Your task to perform on an android device: move a message to another label in the gmail app Image 0: 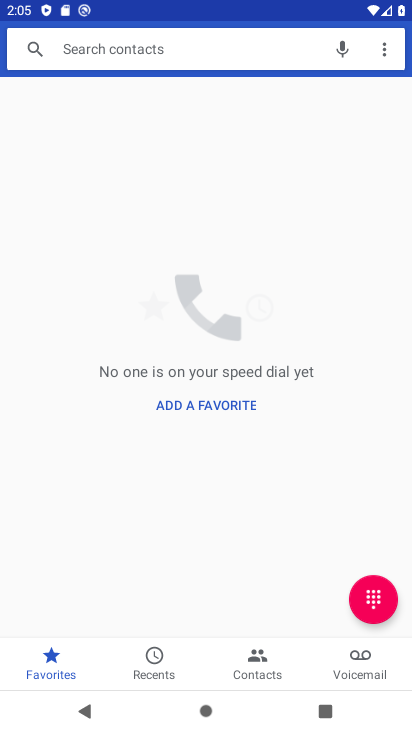
Step 0: press back button
Your task to perform on an android device: move a message to another label in the gmail app Image 1: 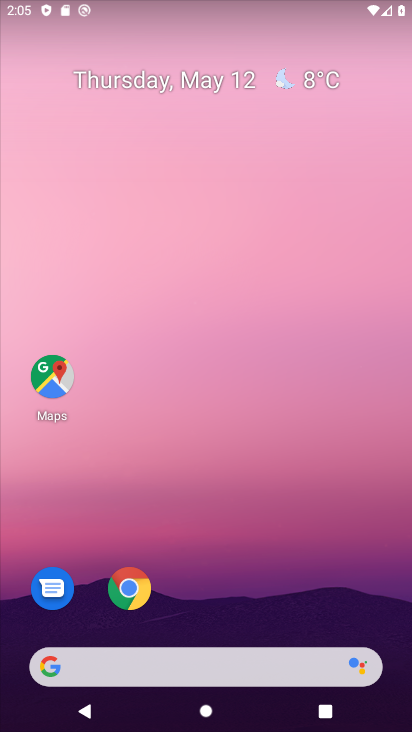
Step 1: drag from (250, 603) to (240, 136)
Your task to perform on an android device: move a message to another label in the gmail app Image 2: 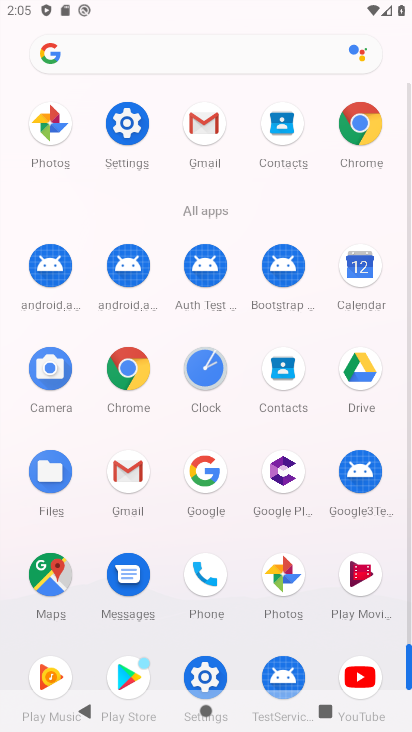
Step 2: click (198, 120)
Your task to perform on an android device: move a message to another label in the gmail app Image 3: 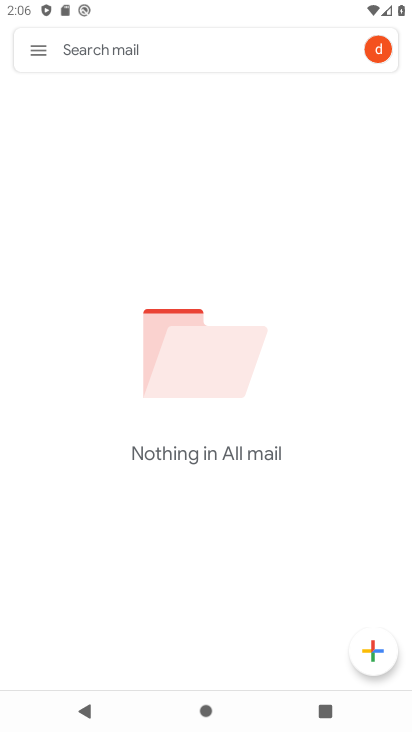
Step 3: click (43, 55)
Your task to perform on an android device: move a message to another label in the gmail app Image 4: 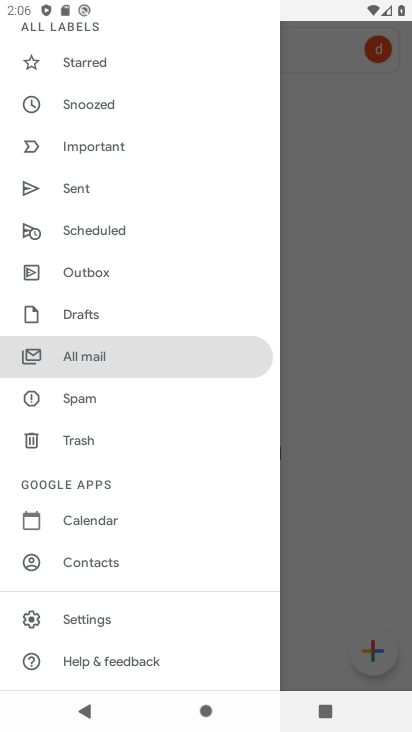
Step 4: drag from (161, 157) to (157, 594)
Your task to perform on an android device: move a message to another label in the gmail app Image 5: 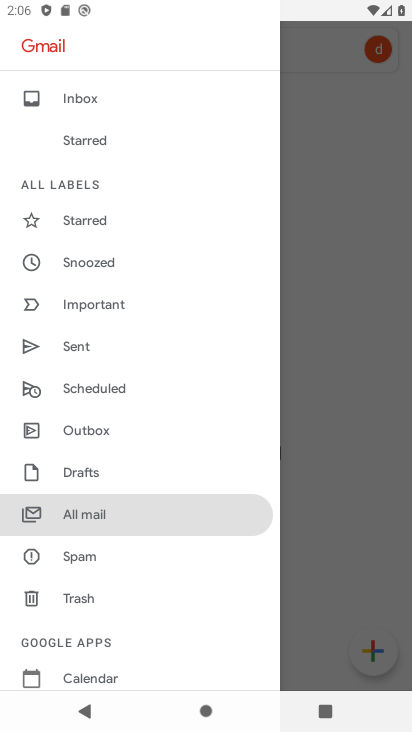
Step 5: click (106, 97)
Your task to perform on an android device: move a message to another label in the gmail app Image 6: 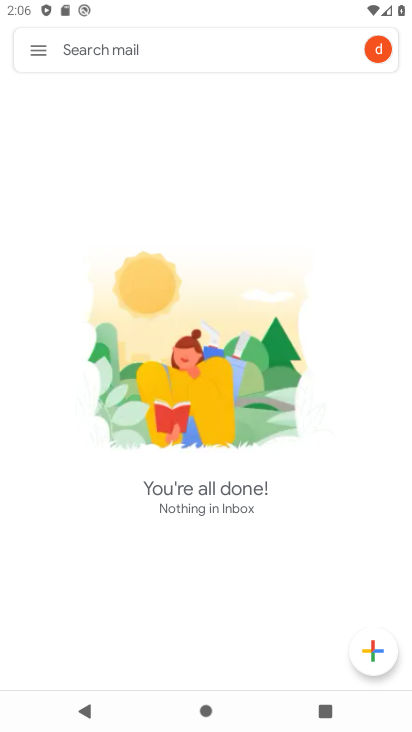
Step 6: click (39, 40)
Your task to perform on an android device: move a message to another label in the gmail app Image 7: 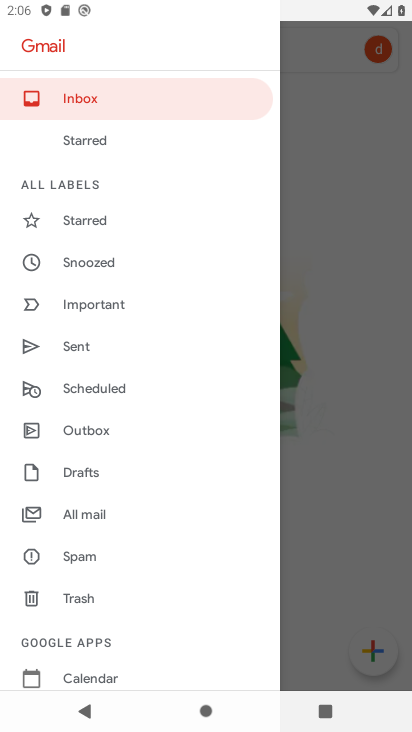
Step 7: click (107, 519)
Your task to perform on an android device: move a message to another label in the gmail app Image 8: 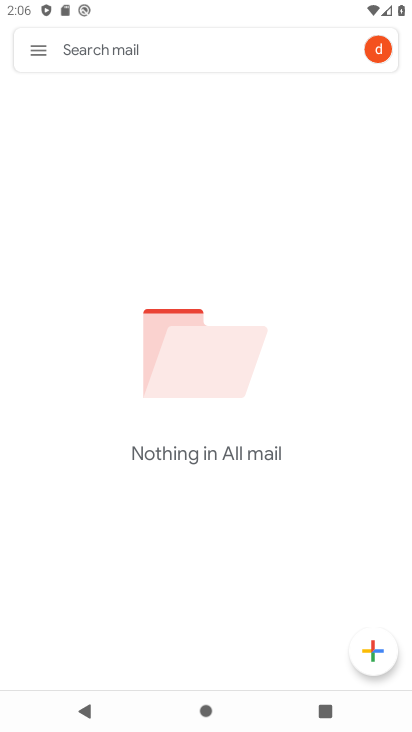
Step 8: click (52, 53)
Your task to perform on an android device: move a message to another label in the gmail app Image 9: 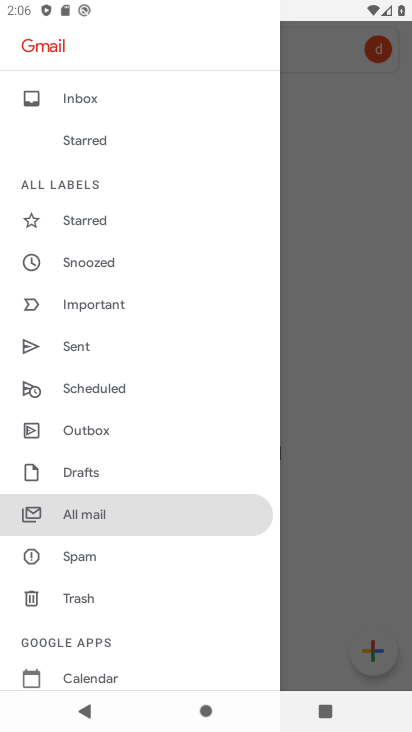
Step 9: click (122, 96)
Your task to perform on an android device: move a message to another label in the gmail app Image 10: 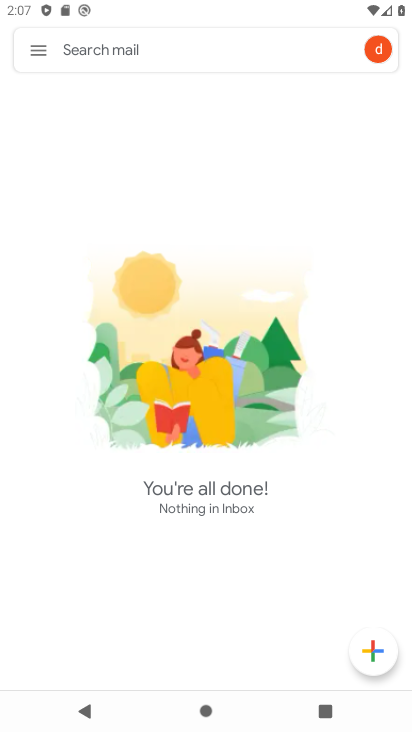
Step 10: click (40, 47)
Your task to perform on an android device: move a message to another label in the gmail app Image 11: 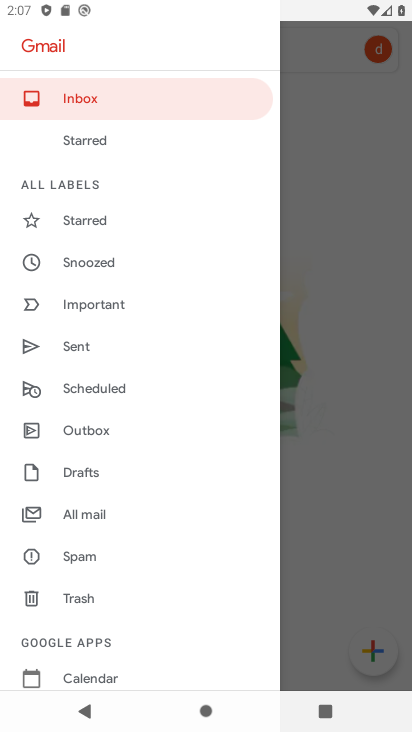
Step 11: click (121, 505)
Your task to perform on an android device: move a message to another label in the gmail app Image 12: 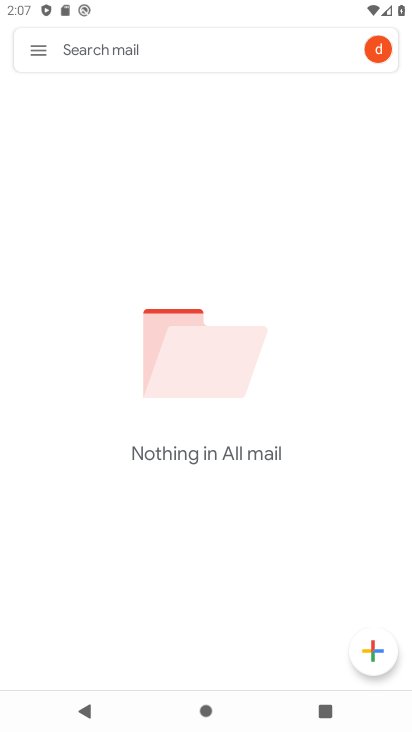
Step 12: task complete